Your task to perform on an android device: Open Google Maps Image 0: 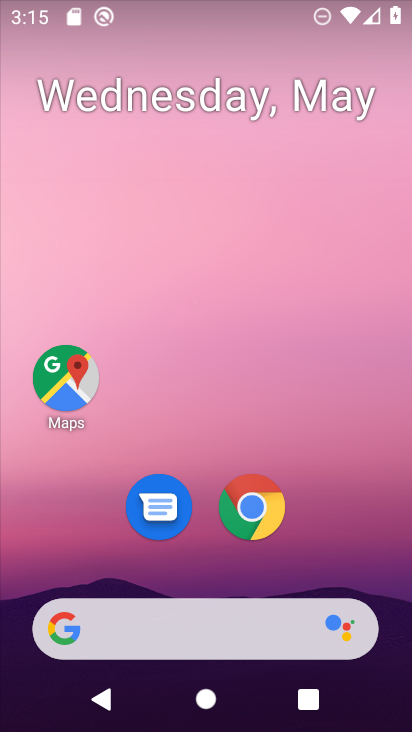
Step 0: click (81, 377)
Your task to perform on an android device: Open Google Maps Image 1: 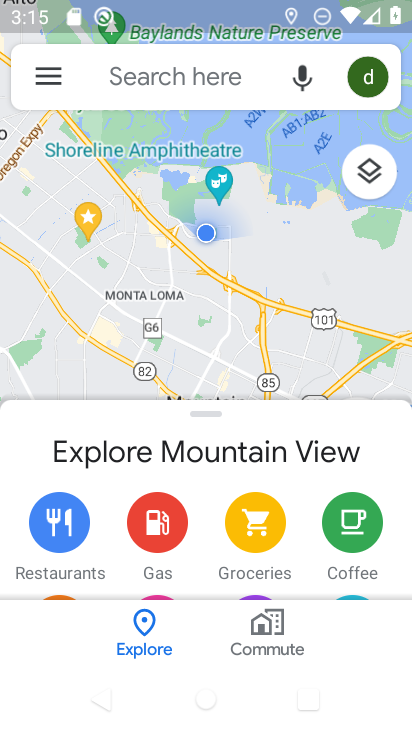
Step 1: task complete